Your task to perform on an android device: turn pop-ups off in chrome Image 0: 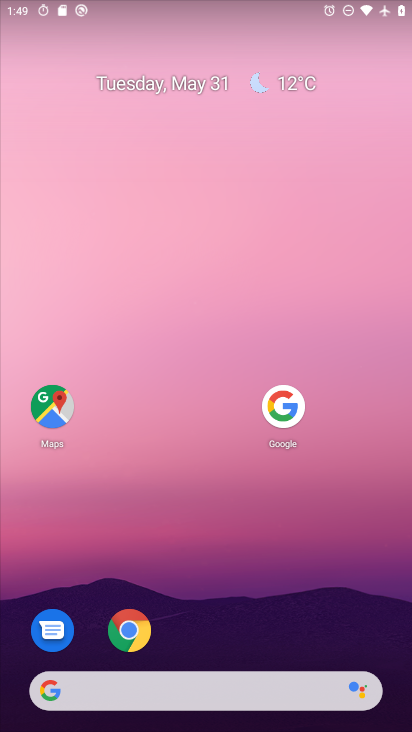
Step 0: press home button
Your task to perform on an android device: turn pop-ups off in chrome Image 1: 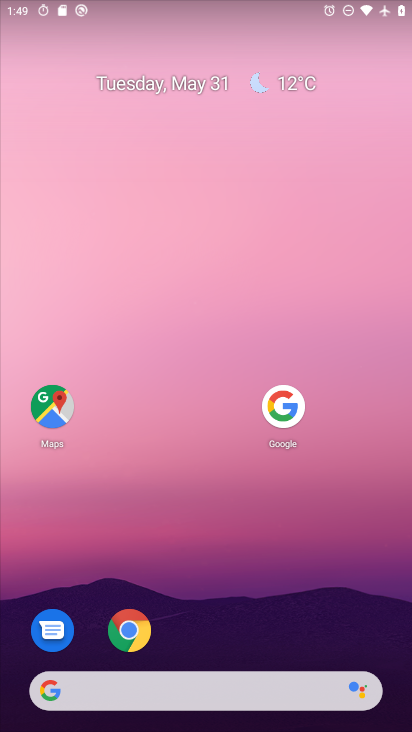
Step 1: click (136, 629)
Your task to perform on an android device: turn pop-ups off in chrome Image 2: 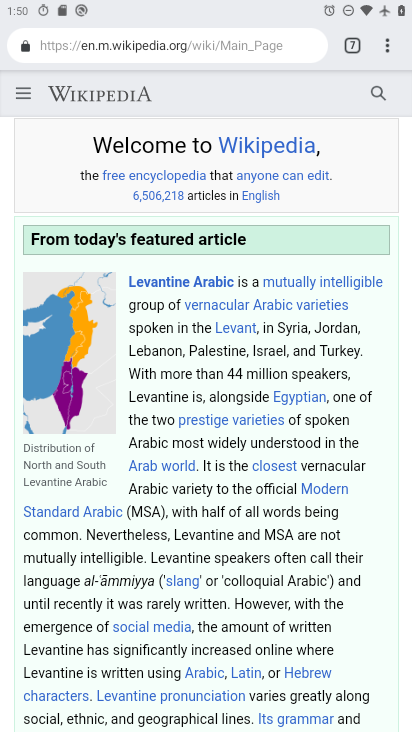
Step 2: drag from (382, 51) to (277, 588)
Your task to perform on an android device: turn pop-ups off in chrome Image 3: 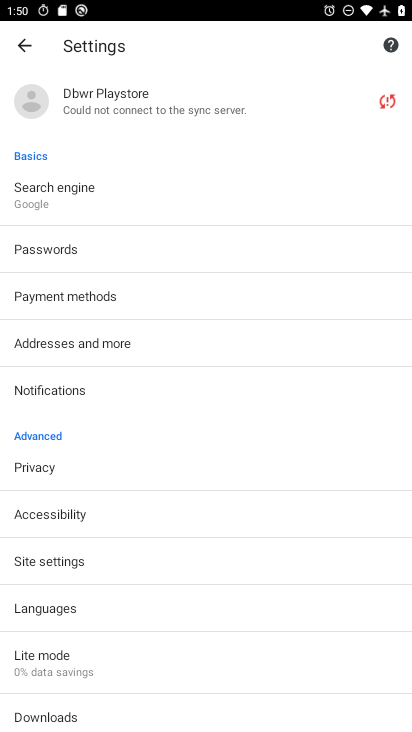
Step 3: click (65, 559)
Your task to perform on an android device: turn pop-ups off in chrome Image 4: 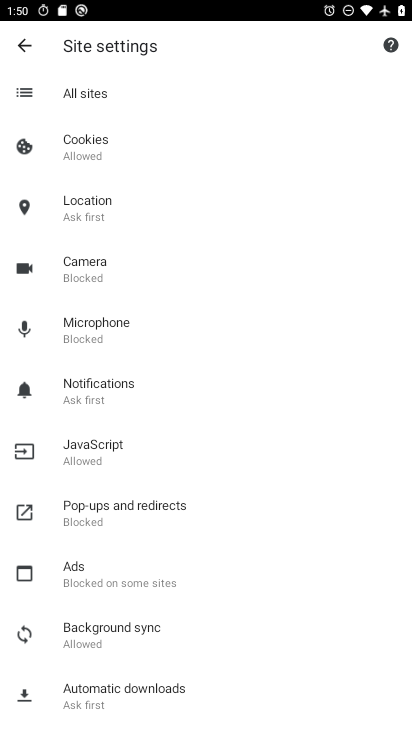
Step 4: click (104, 512)
Your task to perform on an android device: turn pop-ups off in chrome Image 5: 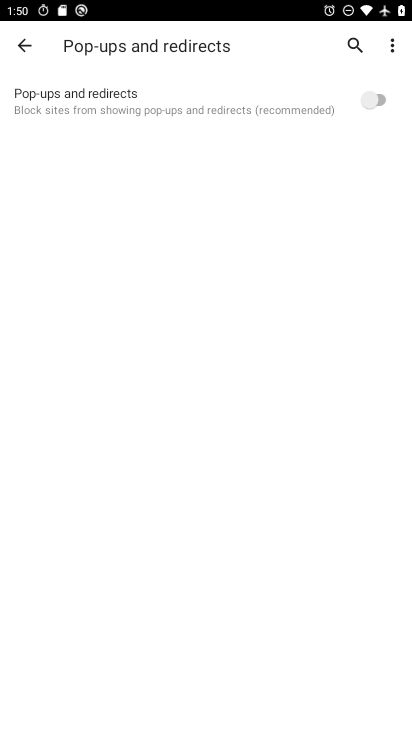
Step 5: task complete